Your task to perform on an android device: Go to display settings Image 0: 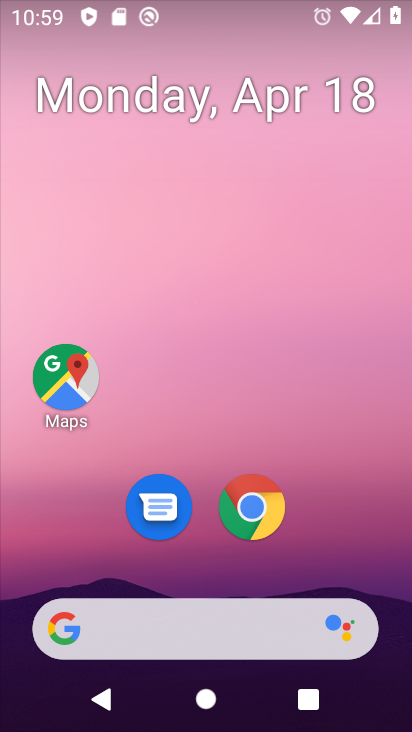
Step 0: drag from (218, 668) to (97, 0)
Your task to perform on an android device: Go to display settings Image 1: 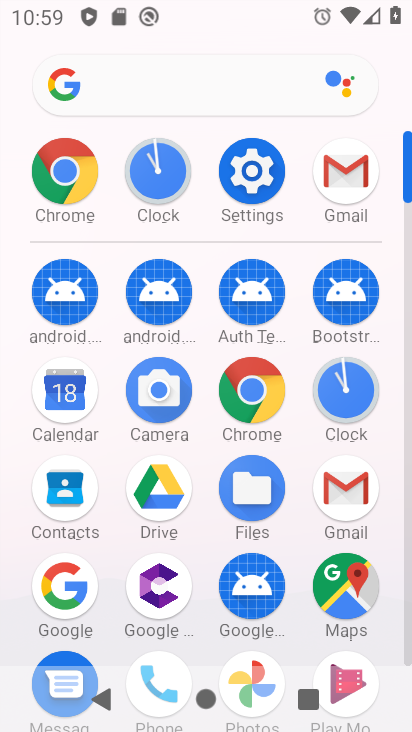
Step 1: drag from (200, 549) to (119, 294)
Your task to perform on an android device: Go to display settings Image 2: 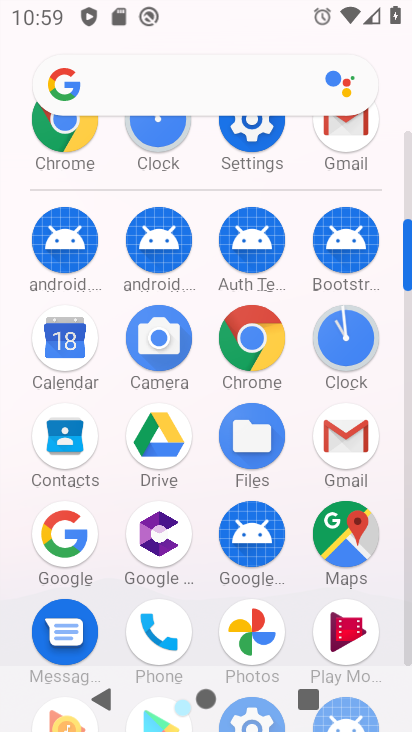
Step 2: drag from (206, 590) to (185, 441)
Your task to perform on an android device: Go to display settings Image 3: 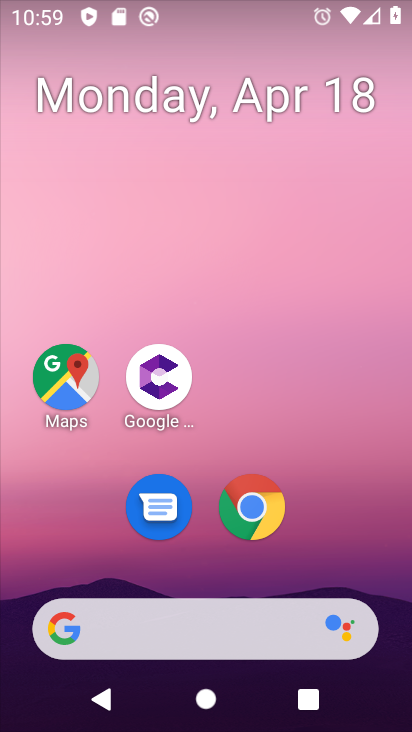
Step 3: drag from (240, 664) to (139, 21)
Your task to perform on an android device: Go to display settings Image 4: 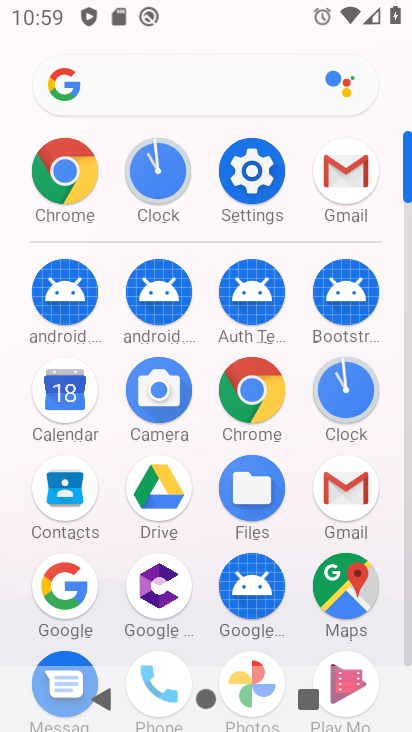
Step 4: click (269, 186)
Your task to perform on an android device: Go to display settings Image 5: 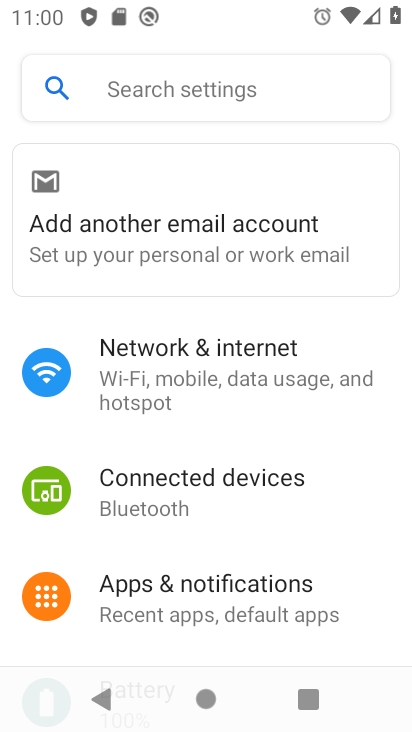
Step 5: click (237, 87)
Your task to perform on an android device: Go to display settings Image 6: 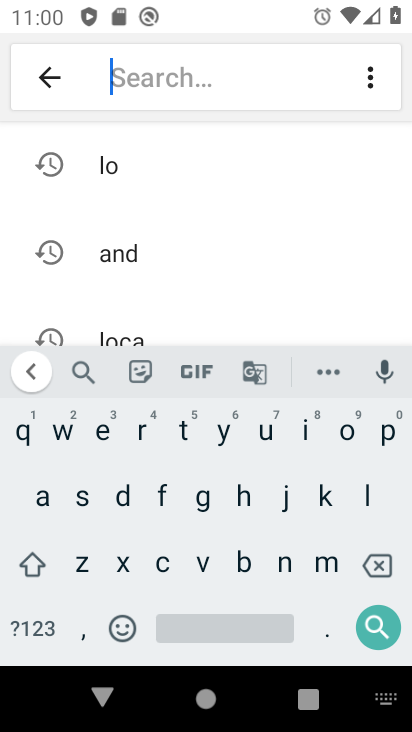
Step 6: click (112, 499)
Your task to perform on an android device: Go to display settings Image 7: 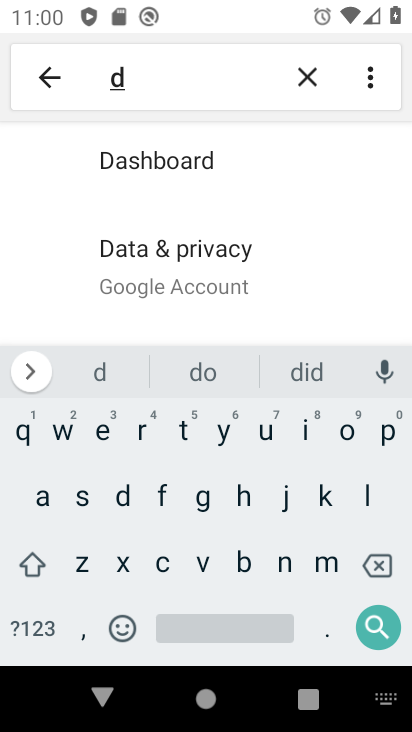
Step 7: click (307, 427)
Your task to perform on an android device: Go to display settings Image 8: 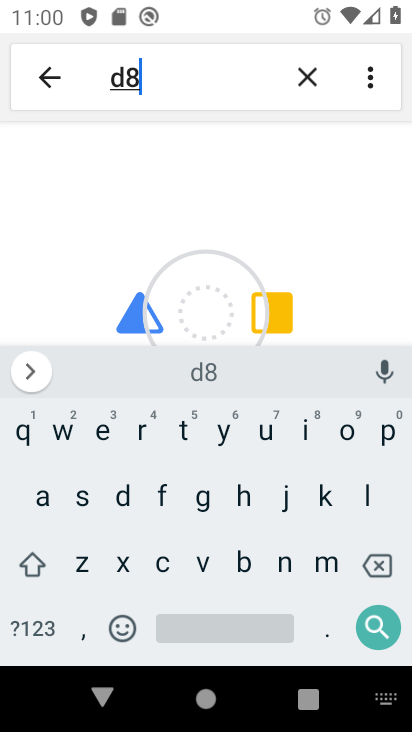
Step 8: click (386, 558)
Your task to perform on an android device: Go to display settings Image 9: 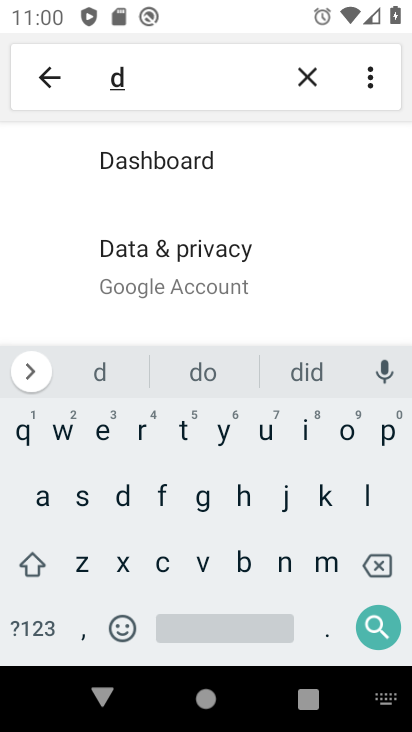
Step 9: click (305, 449)
Your task to perform on an android device: Go to display settings Image 10: 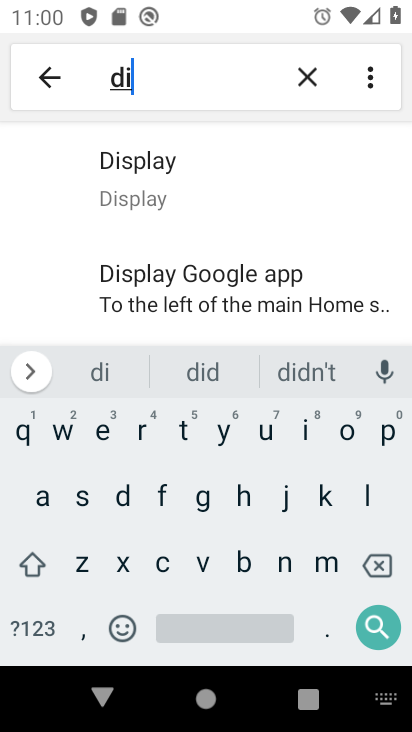
Step 10: click (160, 188)
Your task to perform on an android device: Go to display settings Image 11: 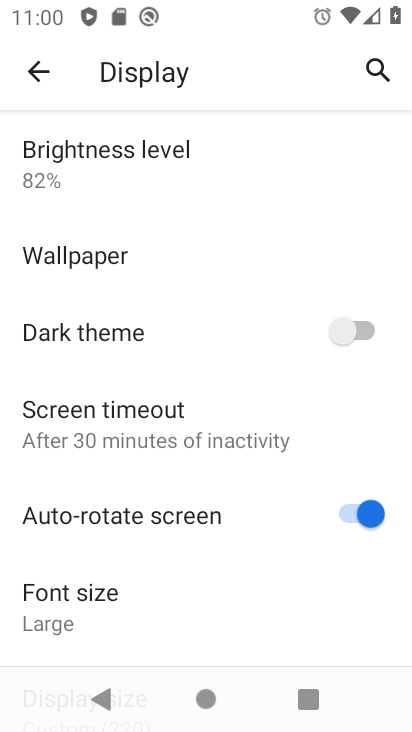
Step 11: task complete